Your task to perform on an android device: make emails show in primary in the gmail app Image 0: 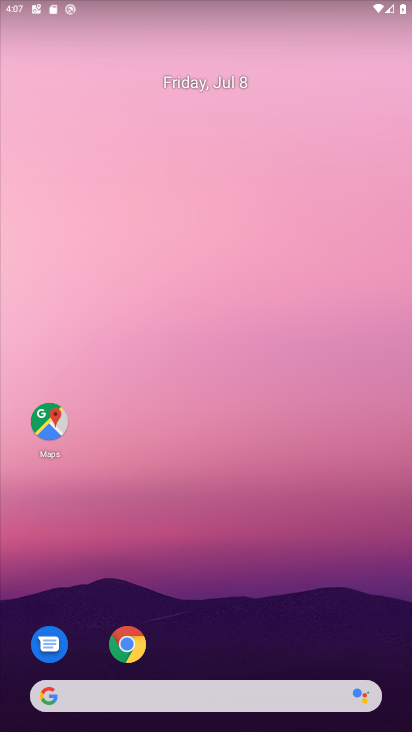
Step 0: drag from (366, 629) to (332, 71)
Your task to perform on an android device: make emails show in primary in the gmail app Image 1: 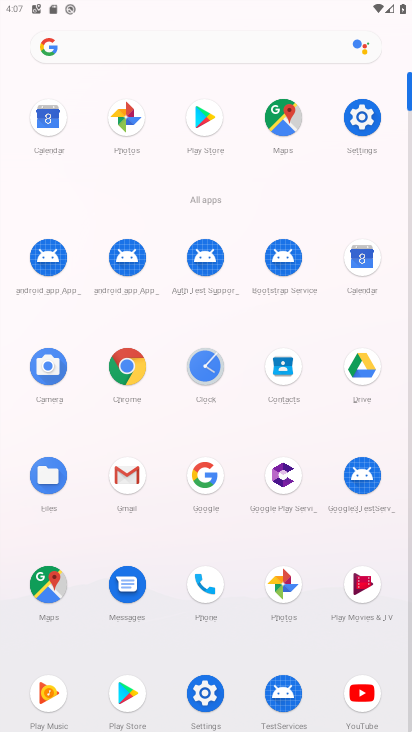
Step 1: click (126, 476)
Your task to perform on an android device: make emails show in primary in the gmail app Image 2: 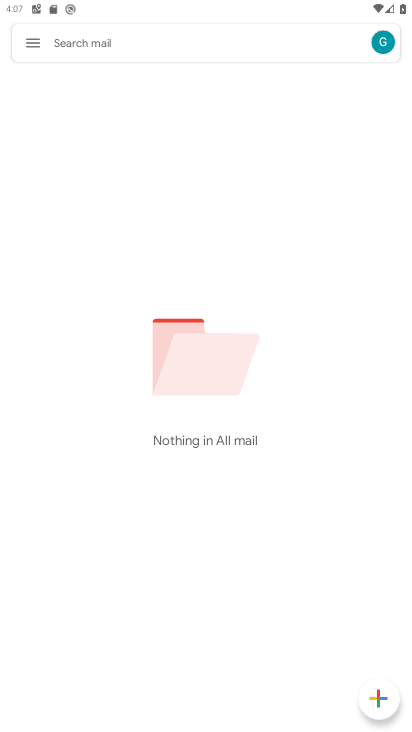
Step 2: click (29, 44)
Your task to perform on an android device: make emails show in primary in the gmail app Image 3: 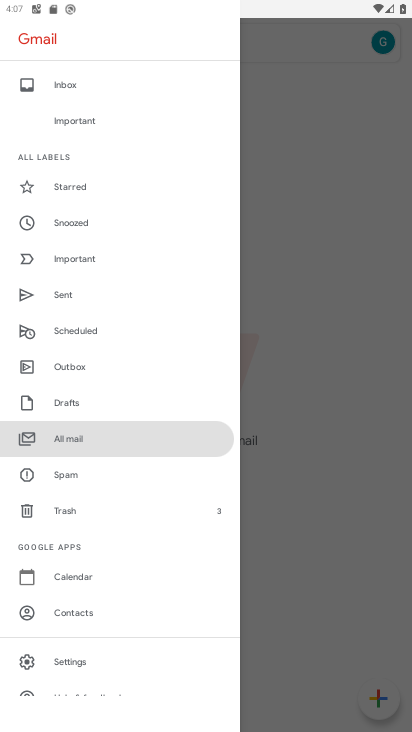
Step 3: click (75, 666)
Your task to perform on an android device: make emails show in primary in the gmail app Image 4: 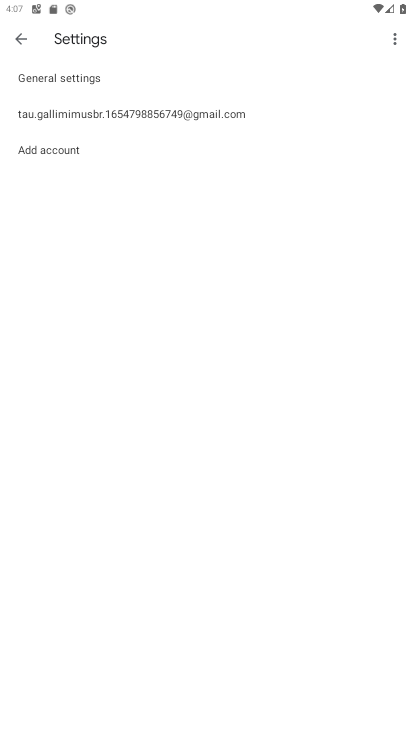
Step 4: click (93, 113)
Your task to perform on an android device: make emails show in primary in the gmail app Image 5: 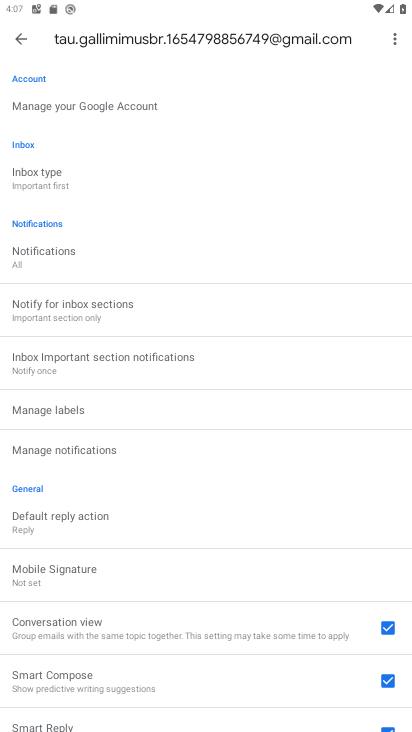
Step 5: click (29, 180)
Your task to perform on an android device: make emails show in primary in the gmail app Image 6: 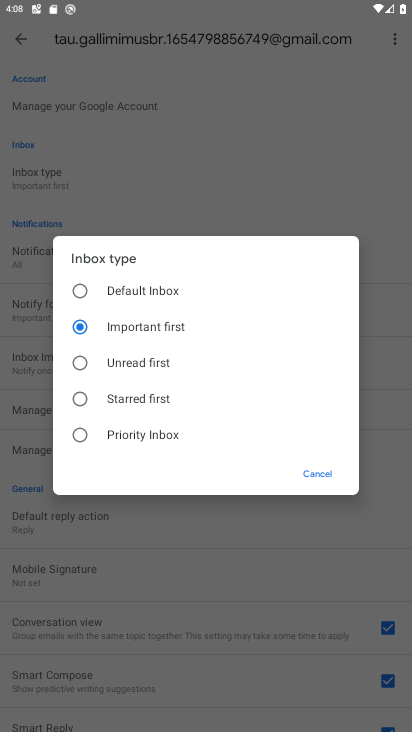
Step 6: click (75, 289)
Your task to perform on an android device: make emails show in primary in the gmail app Image 7: 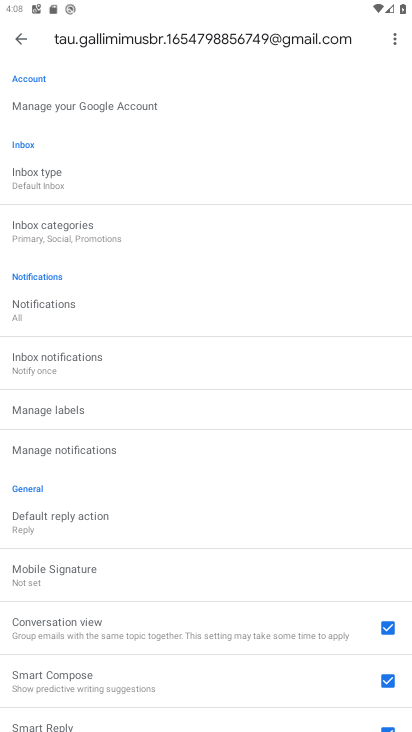
Step 7: click (55, 238)
Your task to perform on an android device: make emails show in primary in the gmail app Image 8: 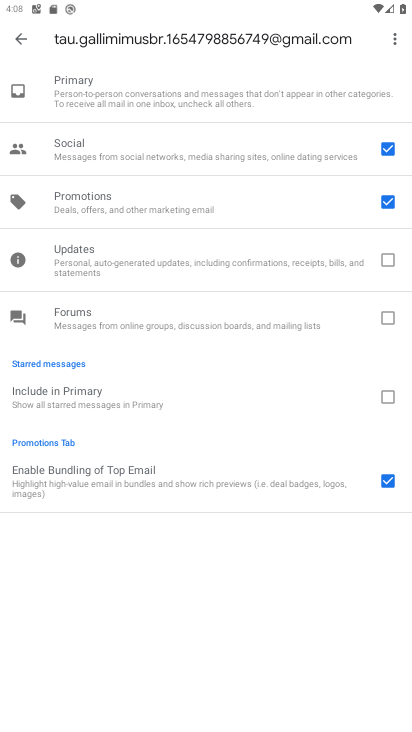
Step 8: click (389, 203)
Your task to perform on an android device: make emails show in primary in the gmail app Image 9: 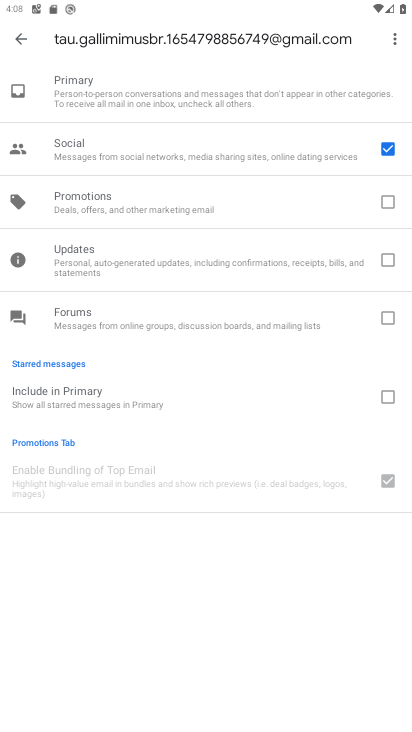
Step 9: click (387, 143)
Your task to perform on an android device: make emails show in primary in the gmail app Image 10: 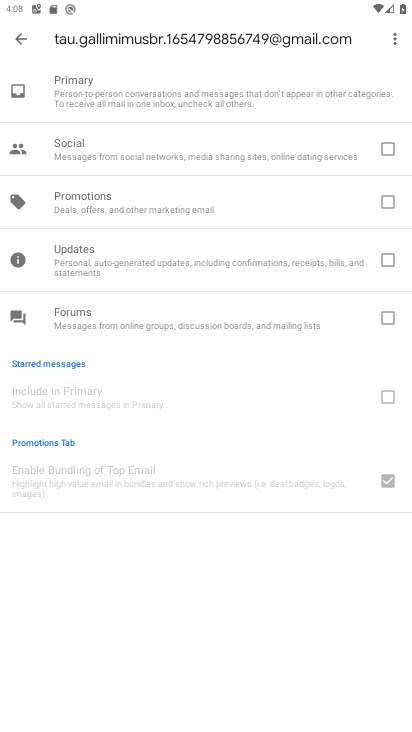
Step 10: task complete